Your task to perform on an android device: turn on notifications settings in the gmail app Image 0: 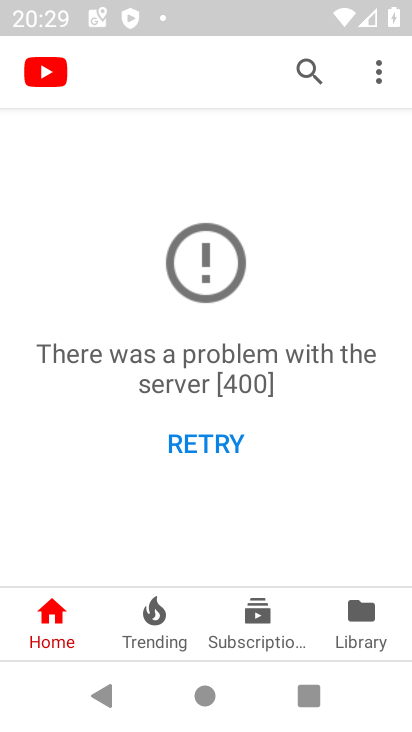
Step 0: task complete